Your task to perform on an android device: Is it going to rain this weekend? Image 0: 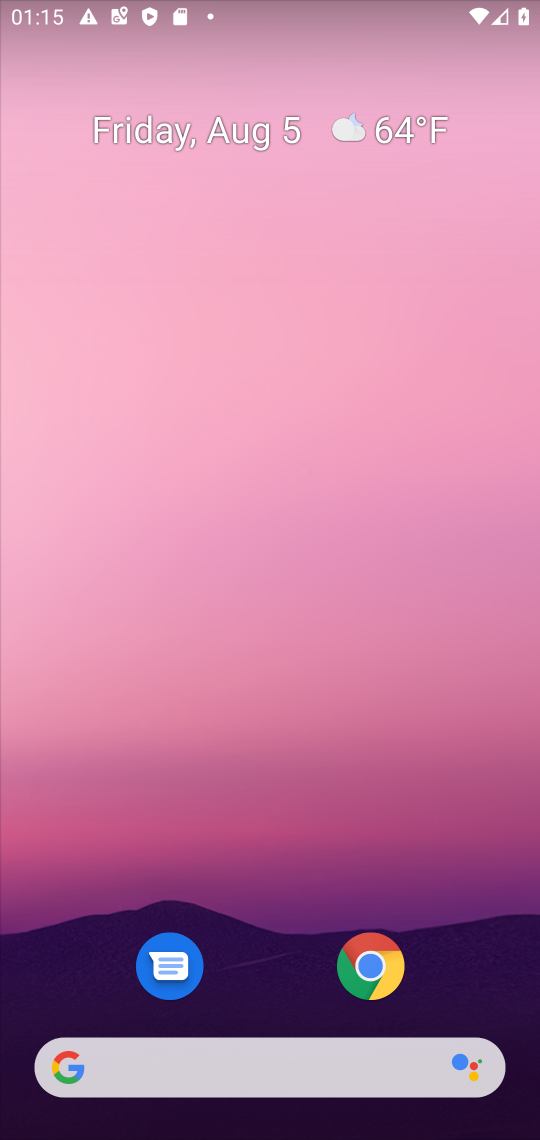
Step 0: click (379, 117)
Your task to perform on an android device: Is it going to rain this weekend? Image 1: 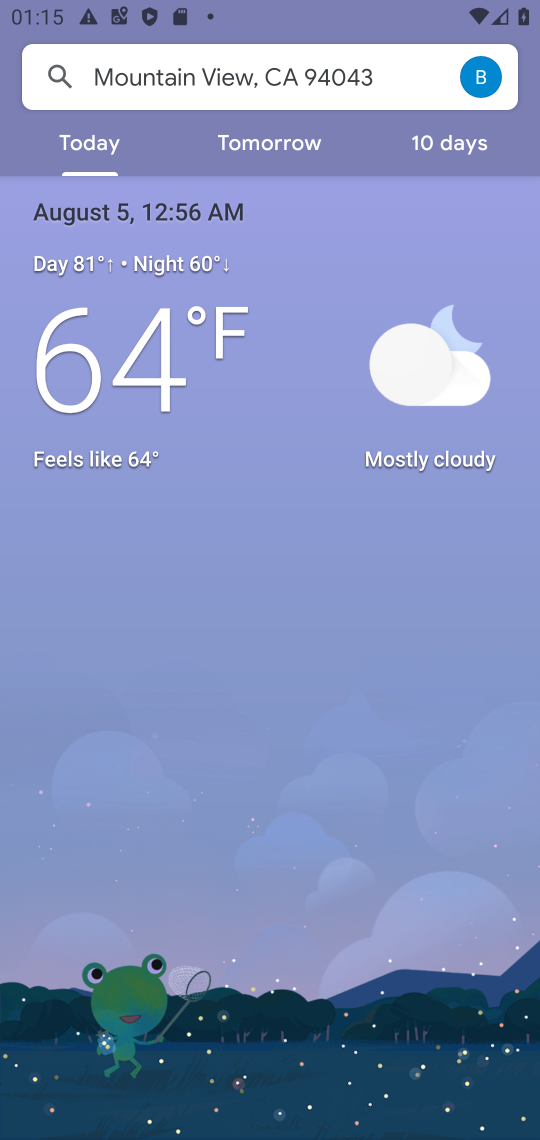
Step 1: task complete